Your task to perform on an android device: Open Reddit Image 0: 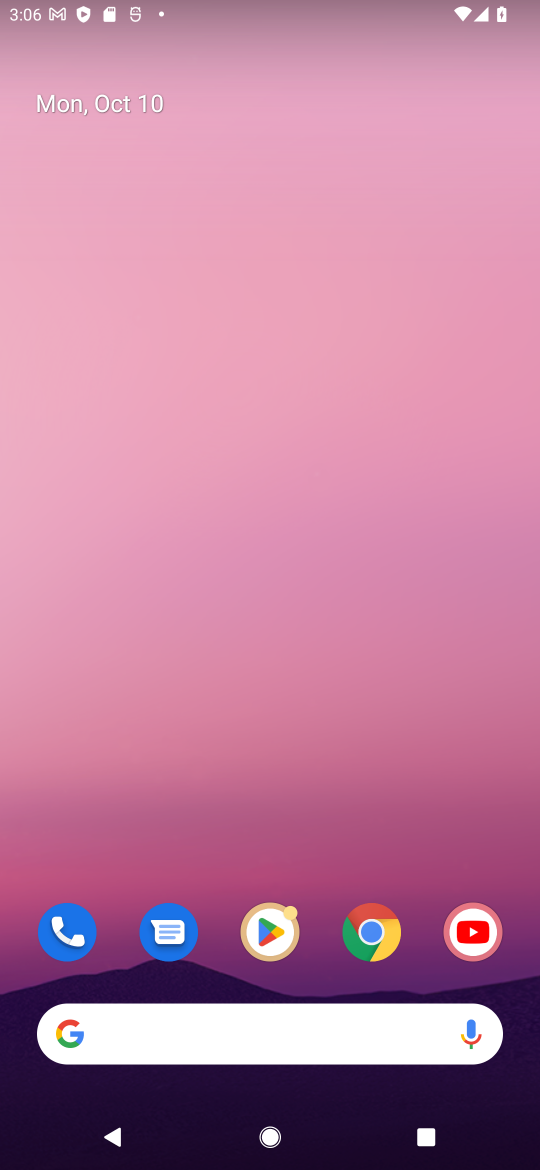
Step 0: press home button
Your task to perform on an android device: Open Reddit Image 1: 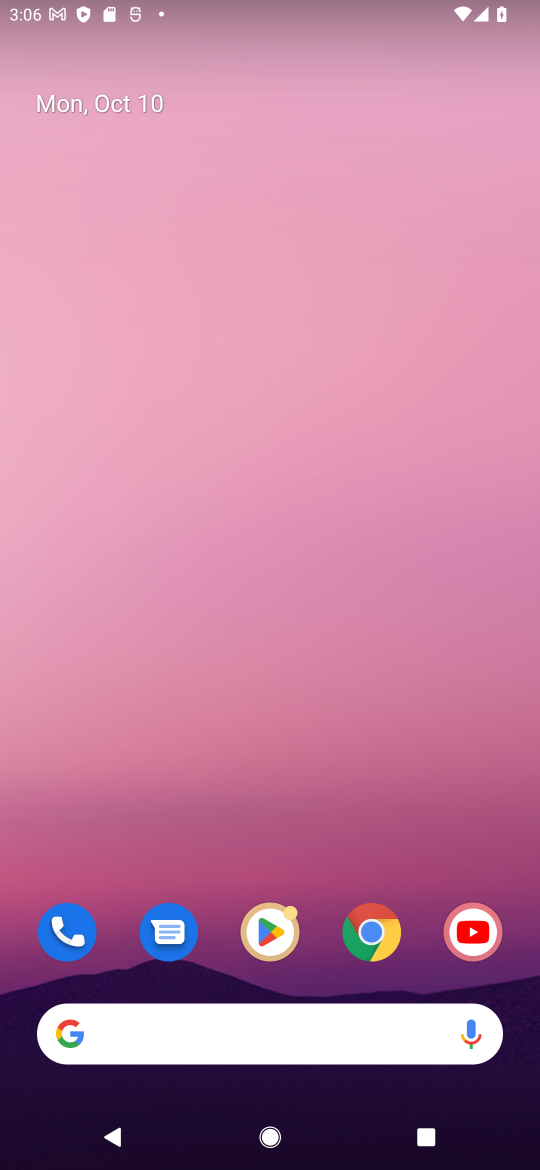
Step 1: click (347, 1041)
Your task to perform on an android device: Open Reddit Image 2: 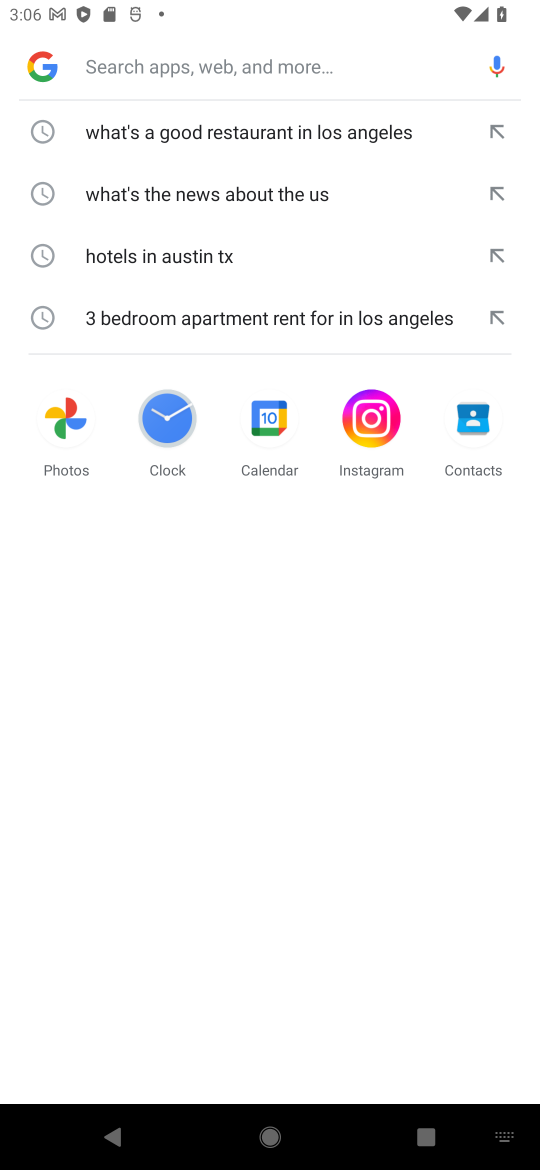
Step 2: type "reddit"
Your task to perform on an android device: Open Reddit Image 3: 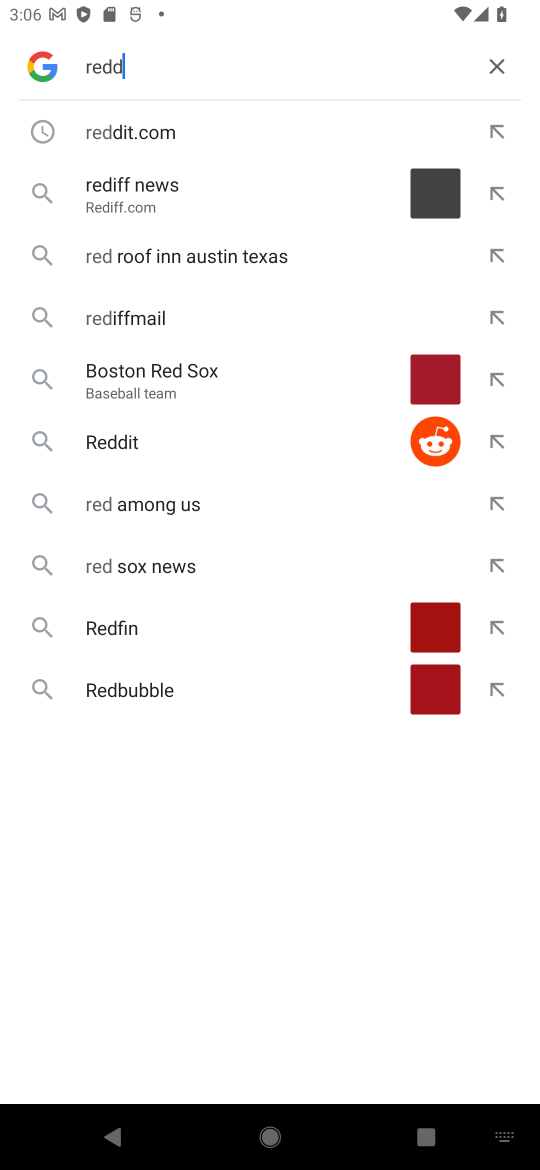
Step 3: press enter
Your task to perform on an android device: Open Reddit Image 4: 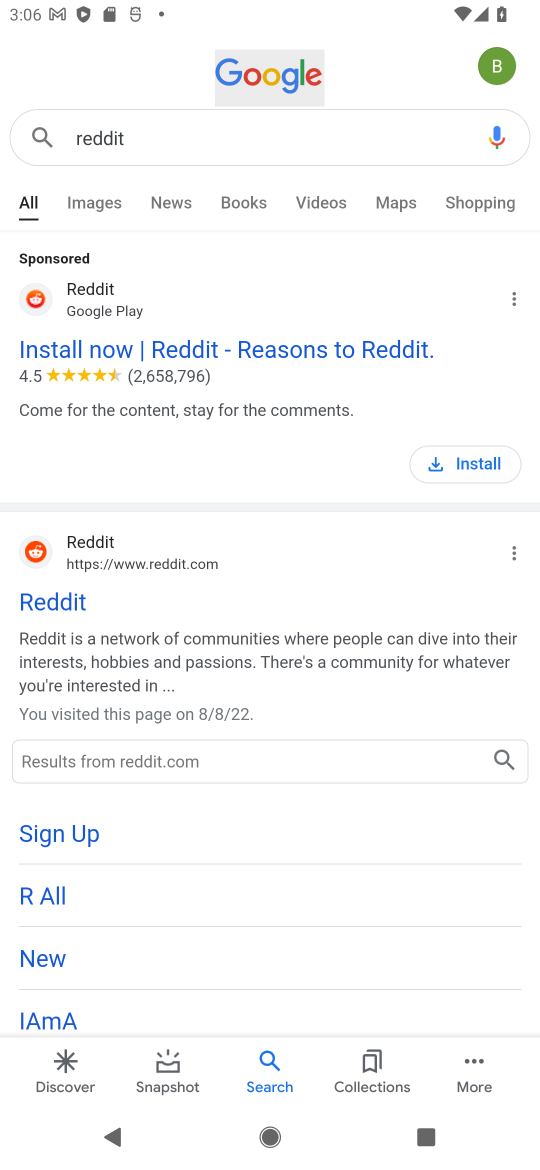
Step 4: click (63, 597)
Your task to perform on an android device: Open Reddit Image 5: 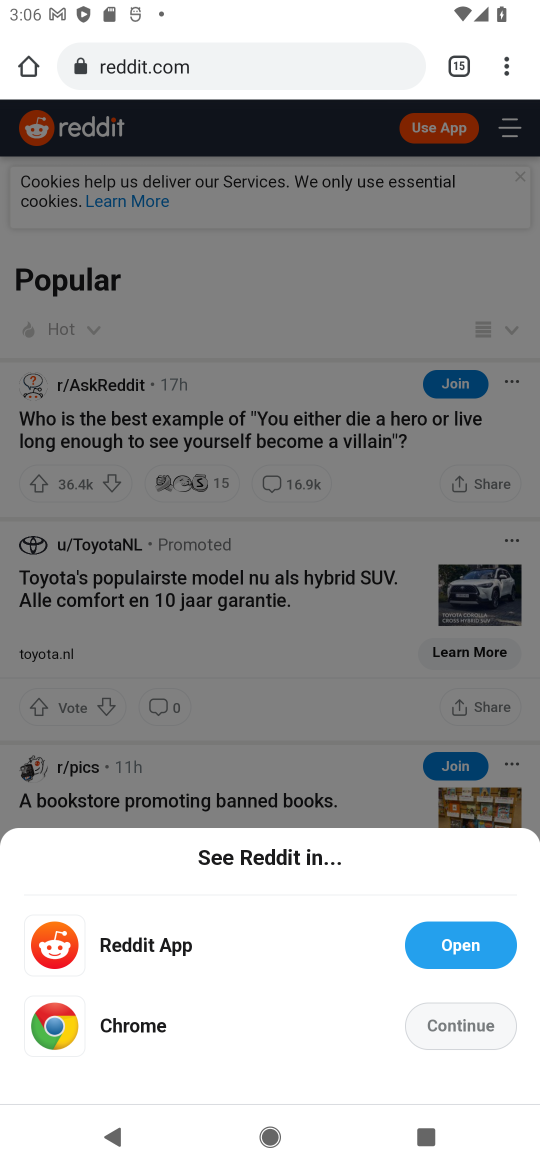
Step 5: click (453, 1029)
Your task to perform on an android device: Open Reddit Image 6: 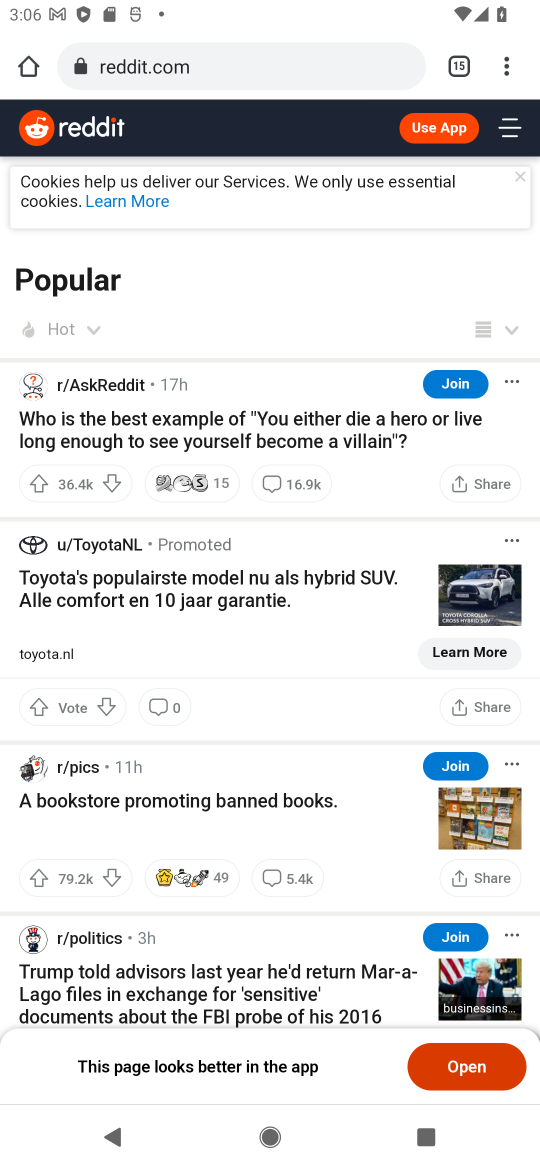
Step 6: task complete